Your task to perform on an android device: turn smart compose on in the gmail app Image 0: 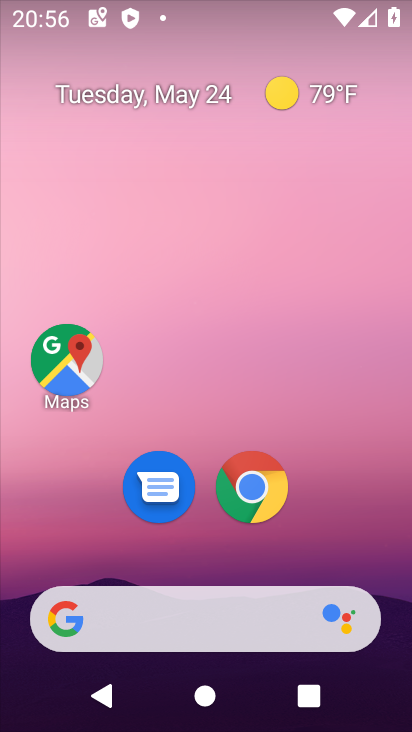
Step 0: press home button
Your task to perform on an android device: turn smart compose on in the gmail app Image 1: 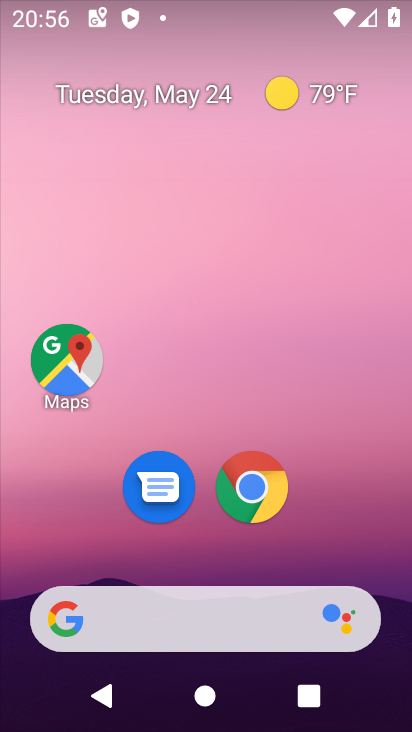
Step 1: click (340, 171)
Your task to perform on an android device: turn smart compose on in the gmail app Image 2: 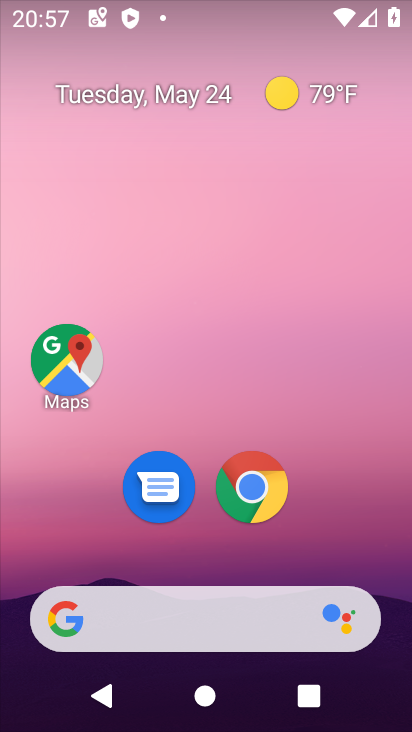
Step 2: drag from (382, 573) to (359, 93)
Your task to perform on an android device: turn smart compose on in the gmail app Image 3: 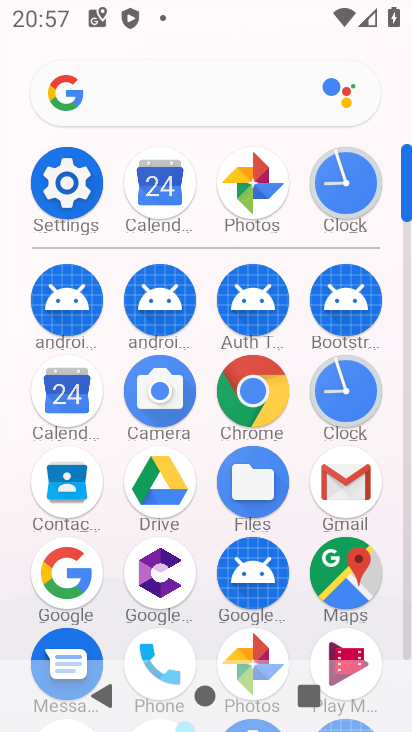
Step 3: click (346, 497)
Your task to perform on an android device: turn smart compose on in the gmail app Image 4: 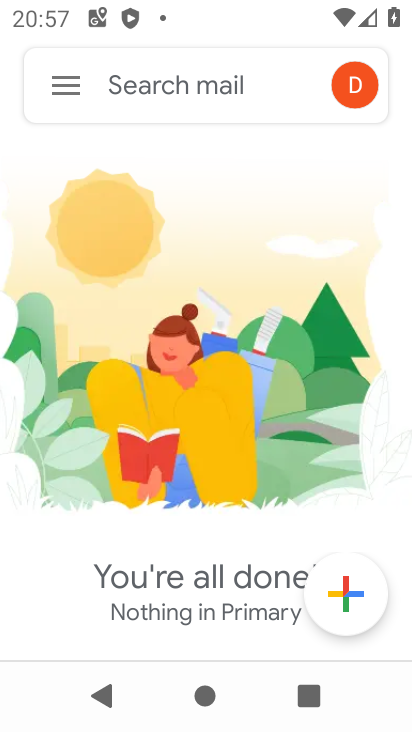
Step 4: click (78, 101)
Your task to perform on an android device: turn smart compose on in the gmail app Image 5: 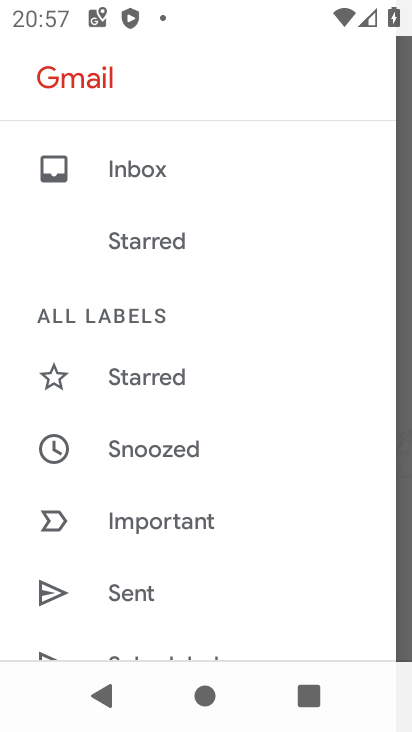
Step 5: drag from (241, 564) to (247, 89)
Your task to perform on an android device: turn smart compose on in the gmail app Image 6: 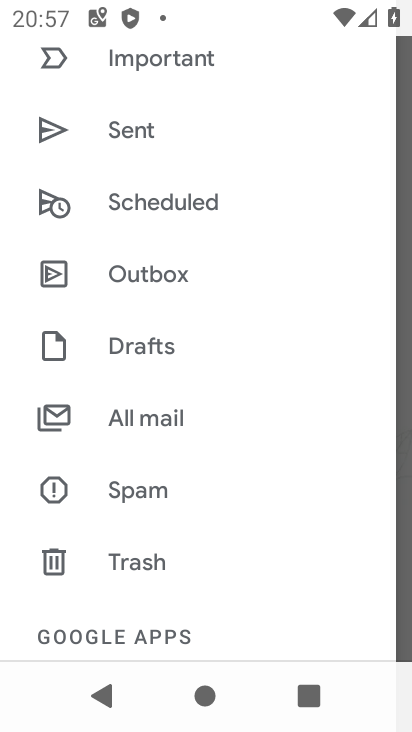
Step 6: drag from (143, 530) to (137, 81)
Your task to perform on an android device: turn smart compose on in the gmail app Image 7: 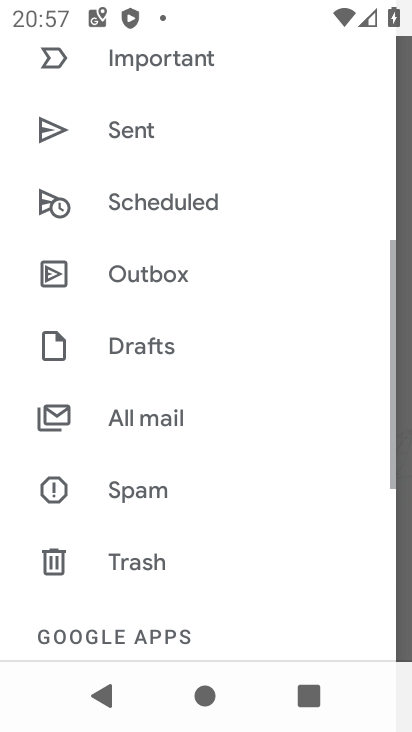
Step 7: drag from (177, 475) to (236, 181)
Your task to perform on an android device: turn smart compose on in the gmail app Image 8: 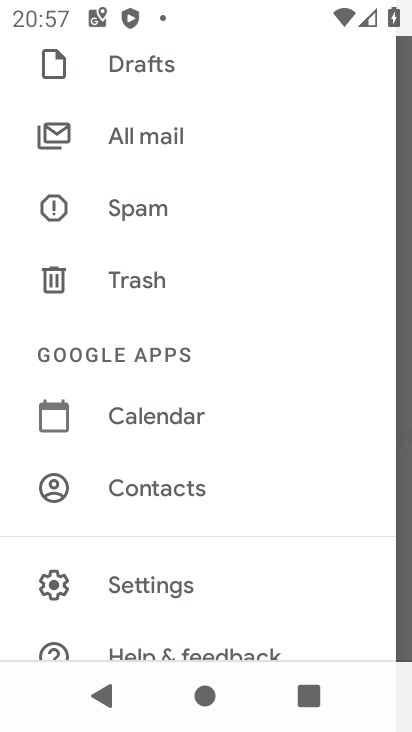
Step 8: click (152, 581)
Your task to perform on an android device: turn smart compose on in the gmail app Image 9: 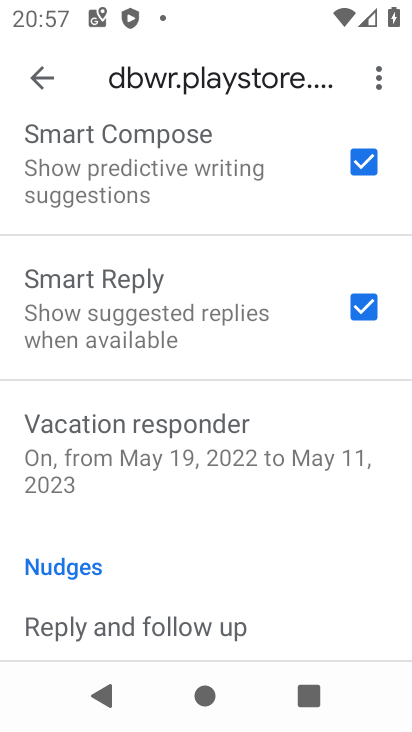
Step 9: task complete